Your task to perform on an android device: install app "Move to iOS" Image 0: 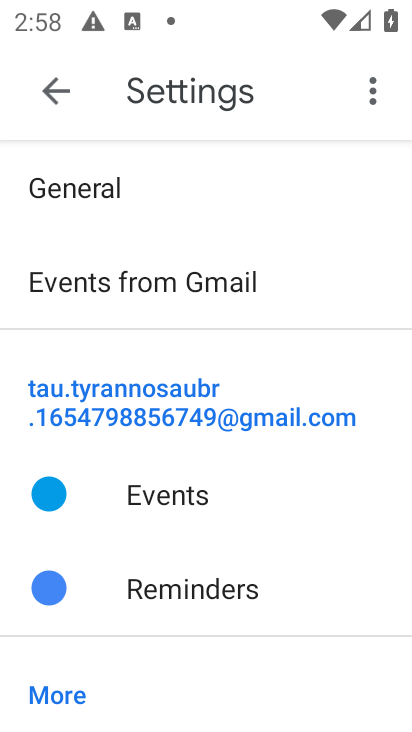
Step 0: press home button
Your task to perform on an android device: install app "Move to iOS" Image 1: 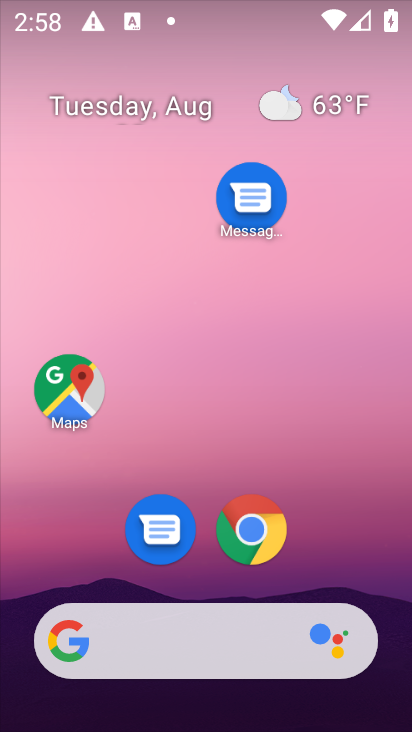
Step 1: drag from (302, 462) to (170, 5)
Your task to perform on an android device: install app "Move to iOS" Image 2: 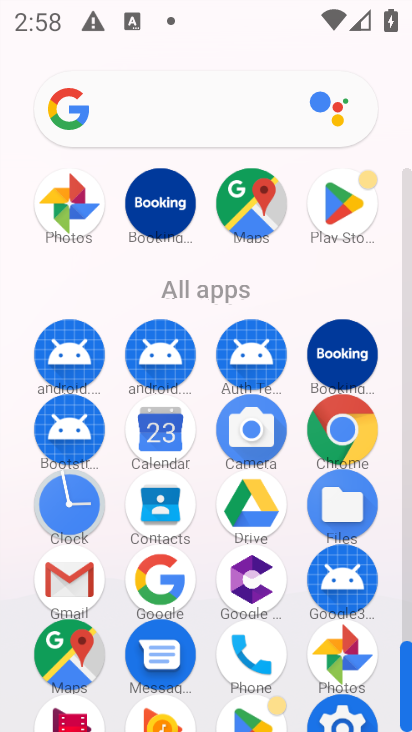
Step 2: click (333, 211)
Your task to perform on an android device: install app "Move to iOS" Image 3: 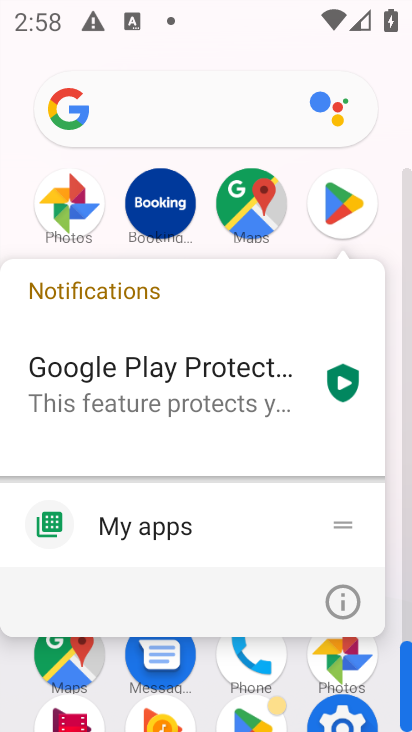
Step 3: click (328, 196)
Your task to perform on an android device: install app "Move to iOS" Image 4: 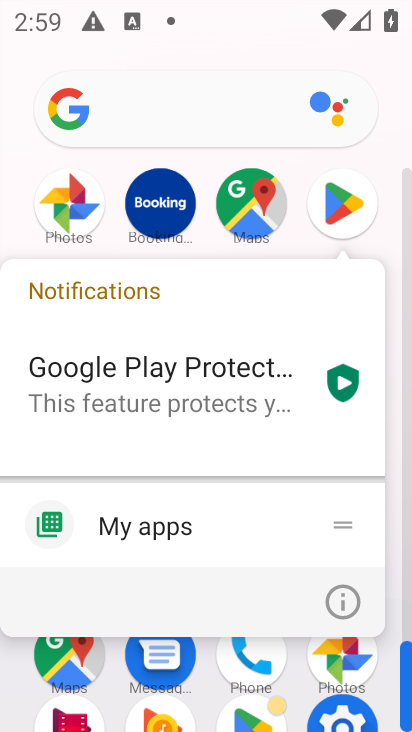
Step 4: click (343, 191)
Your task to perform on an android device: install app "Move to iOS" Image 5: 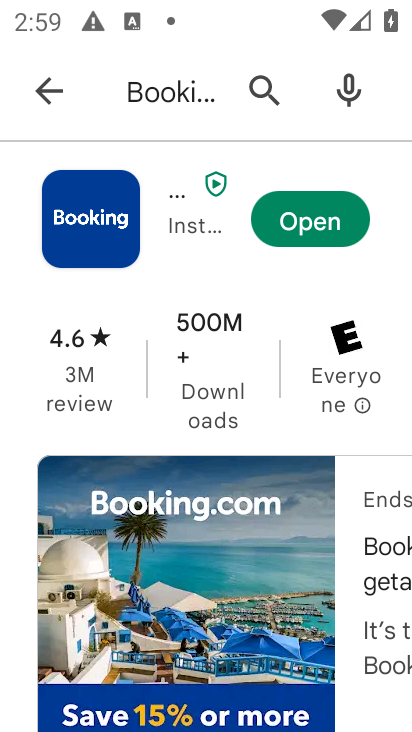
Step 5: press back button
Your task to perform on an android device: install app "Move to iOS" Image 6: 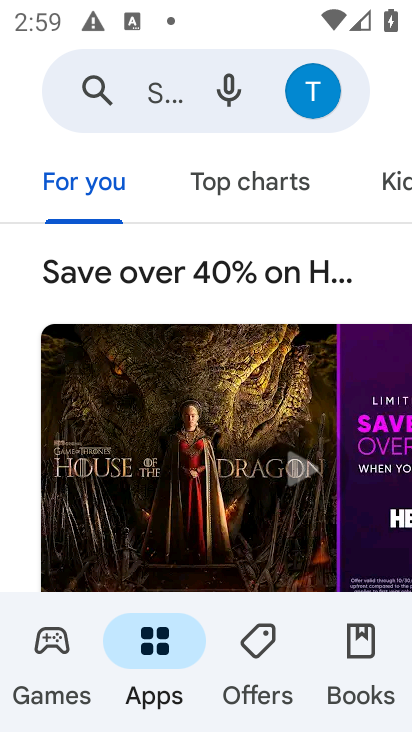
Step 6: click (135, 98)
Your task to perform on an android device: install app "Move to iOS" Image 7: 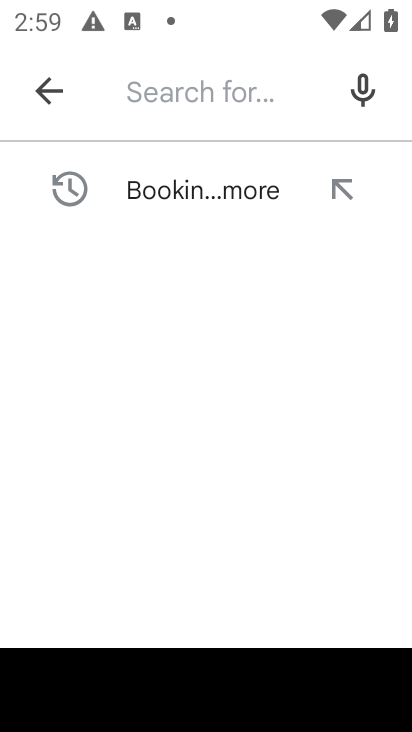
Step 7: type "Move to iOS"
Your task to perform on an android device: install app "Move to iOS" Image 8: 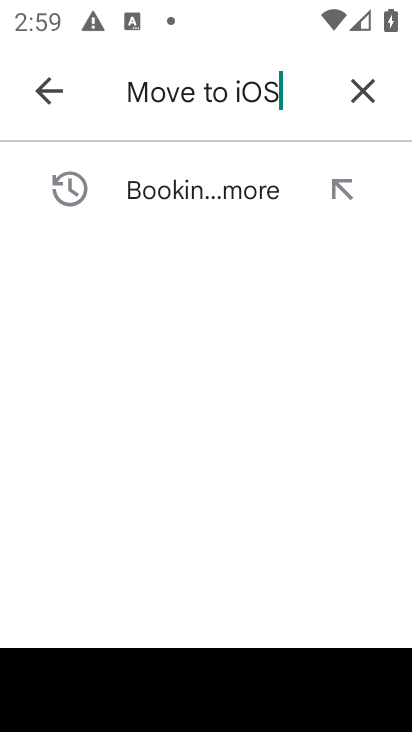
Step 8: press enter
Your task to perform on an android device: install app "Move to iOS" Image 9: 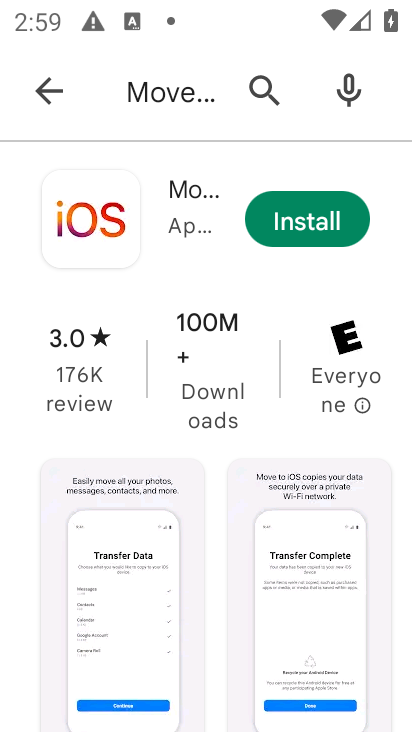
Step 9: click (295, 225)
Your task to perform on an android device: install app "Move to iOS" Image 10: 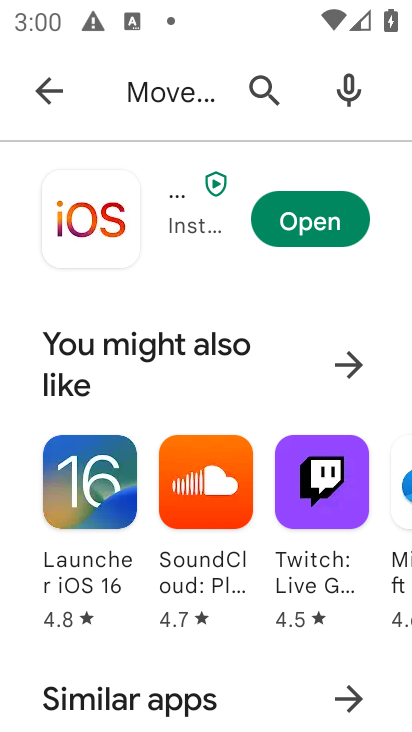
Step 10: click (330, 226)
Your task to perform on an android device: install app "Move to iOS" Image 11: 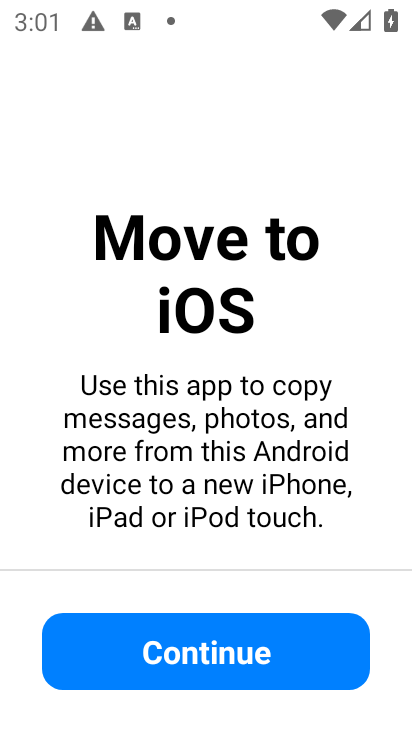
Step 11: task complete